Your task to perform on an android device: Go to Wikipedia Image 0: 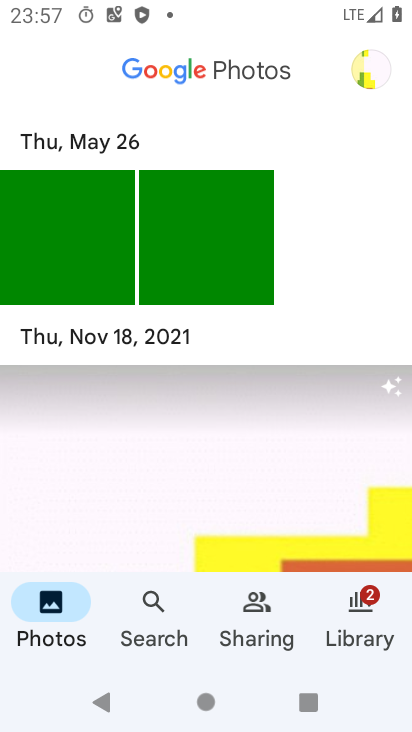
Step 0: drag from (187, 520) to (185, 40)
Your task to perform on an android device: Go to Wikipedia Image 1: 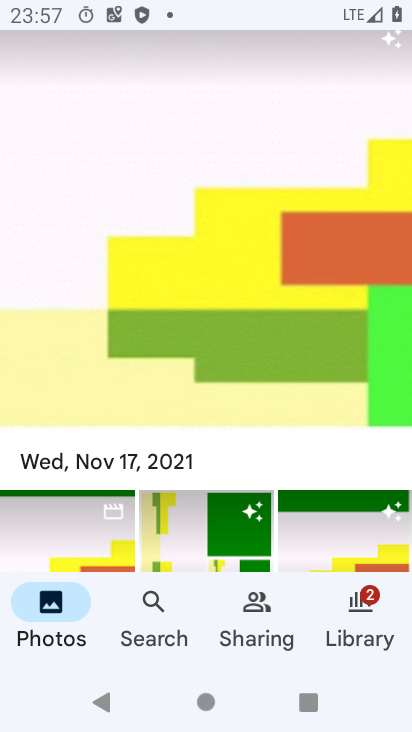
Step 1: drag from (228, 122) to (199, 568)
Your task to perform on an android device: Go to Wikipedia Image 2: 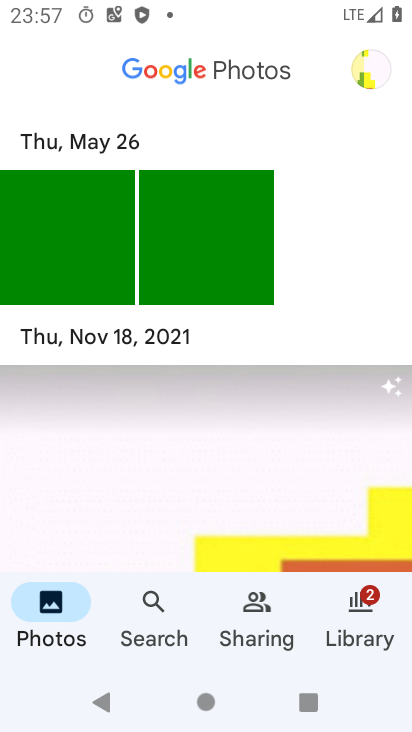
Step 2: drag from (221, 325) to (211, 508)
Your task to perform on an android device: Go to Wikipedia Image 3: 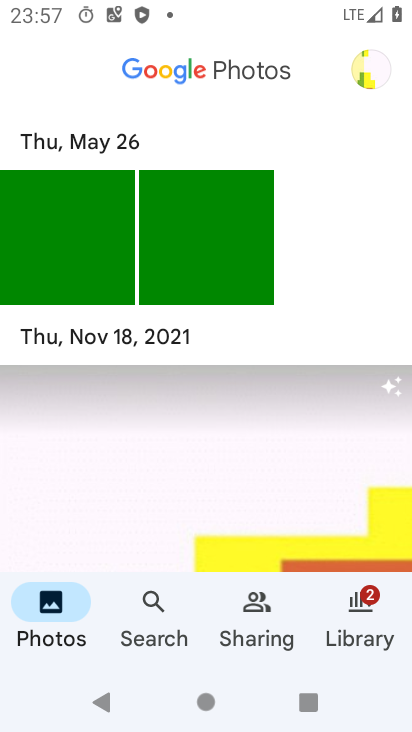
Step 3: drag from (171, 162) to (199, 468)
Your task to perform on an android device: Go to Wikipedia Image 4: 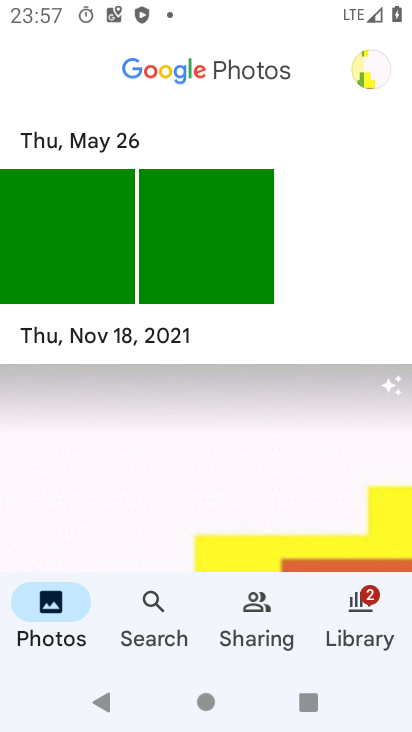
Step 4: drag from (199, 342) to (227, 211)
Your task to perform on an android device: Go to Wikipedia Image 5: 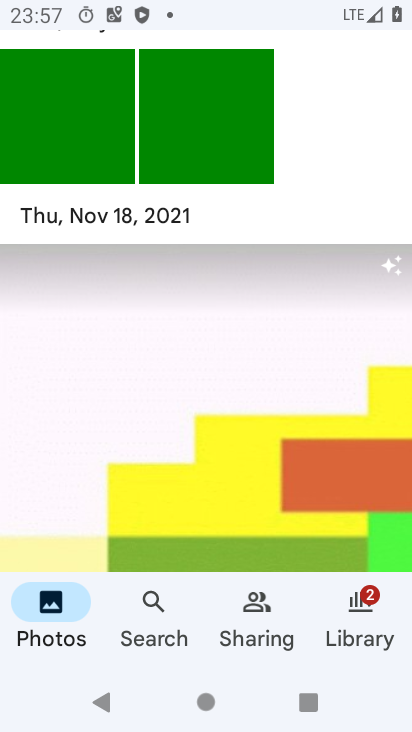
Step 5: drag from (199, 227) to (356, 514)
Your task to perform on an android device: Go to Wikipedia Image 6: 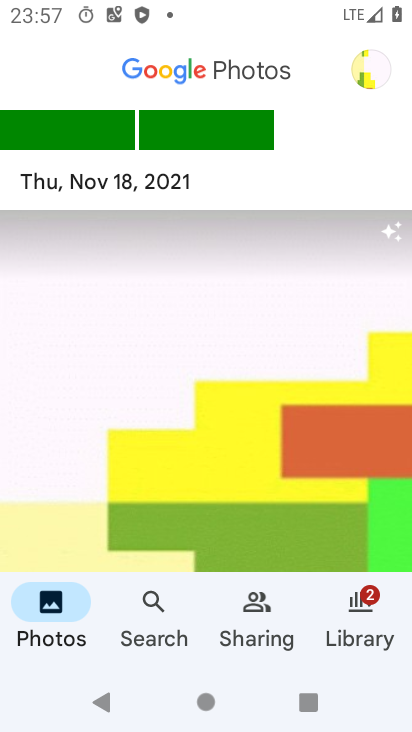
Step 6: drag from (203, 186) to (329, 673)
Your task to perform on an android device: Go to Wikipedia Image 7: 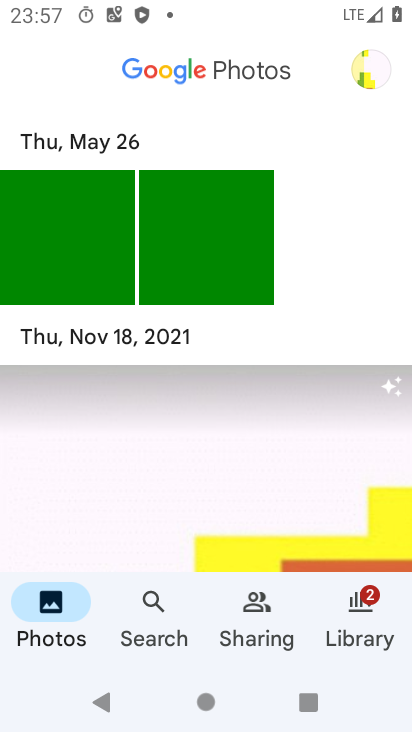
Step 7: press home button
Your task to perform on an android device: Go to Wikipedia Image 8: 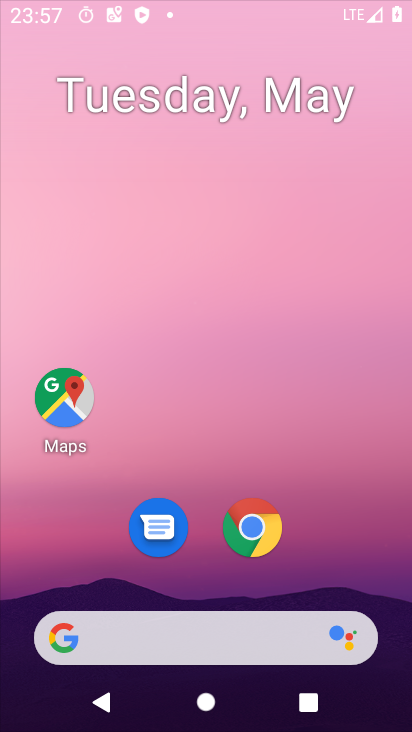
Step 8: drag from (198, 536) to (238, 151)
Your task to perform on an android device: Go to Wikipedia Image 9: 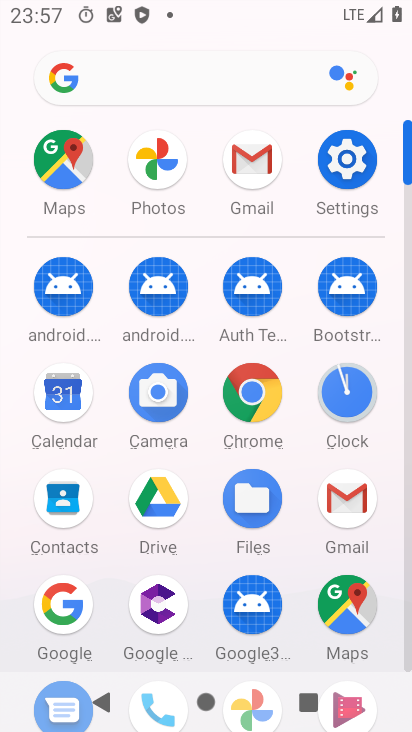
Step 9: drag from (216, 541) to (201, 254)
Your task to perform on an android device: Go to Wikipedia Image 10: 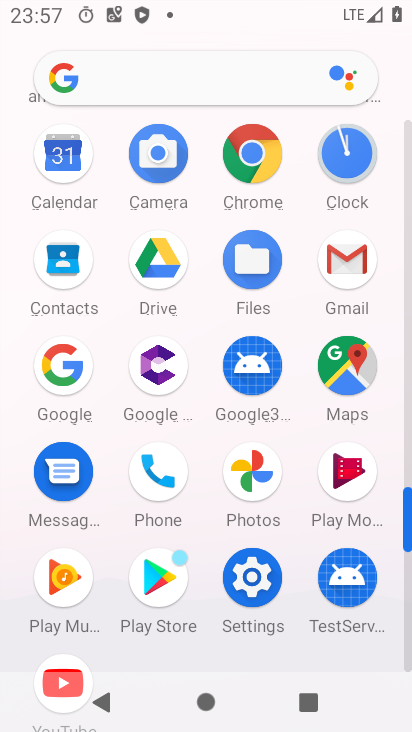
Step 10: drag from (211, 414) to (230, 174)
Your task to perform on an android device: Go to Wikipedia Image 11: 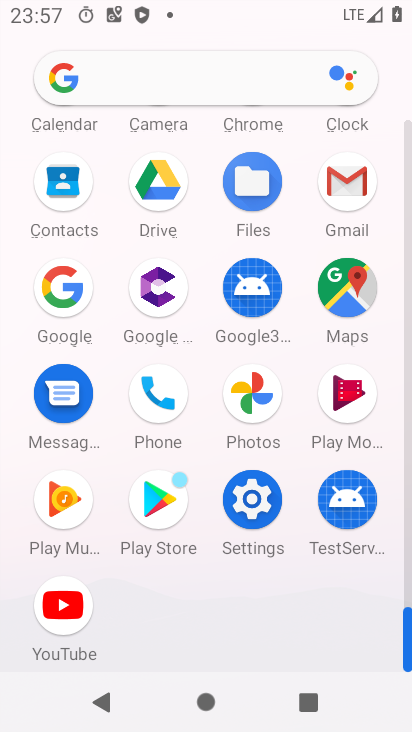
Step 11: drag from (199, 156) to (259, 592)
Your task to perform on an android device: Go to Wikipedia Image 12: 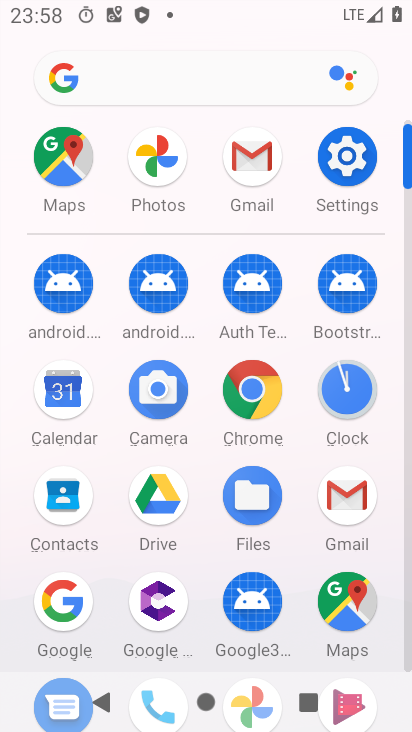
Step 12: type "Wikipedia"
Your task to perform on an android device: Go to Wikipedia Image 13: 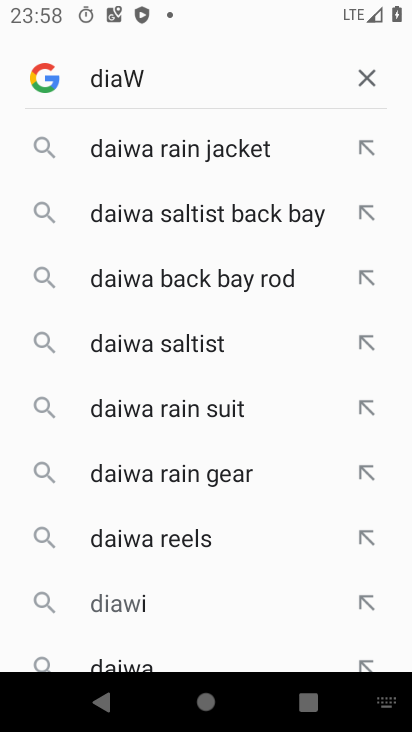
Step 13: click (369, 73)
Your task to perform on an android device: Go to Wikipedia Image 14: 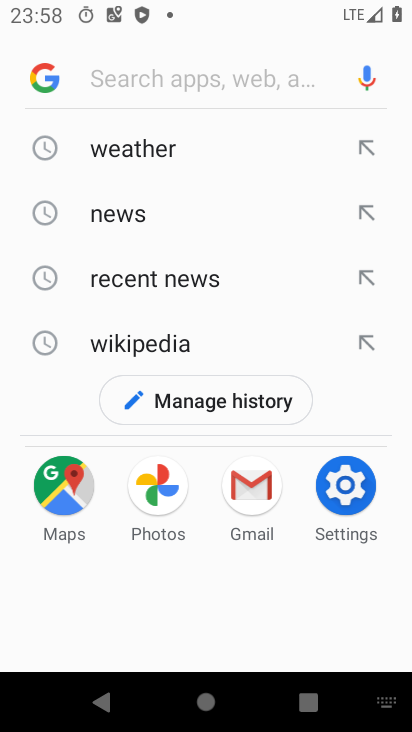
Step 14: click (126, 348)
Your task to perform on an android device: Go to Wikipedia Image 15: 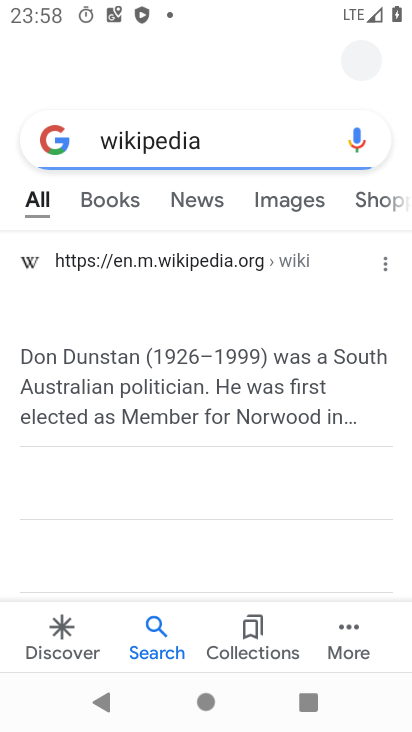
Step 15: drag from (175, 523) to (230, 148)
Your task to perform on an android device: Go to Wikipedia Image 16: 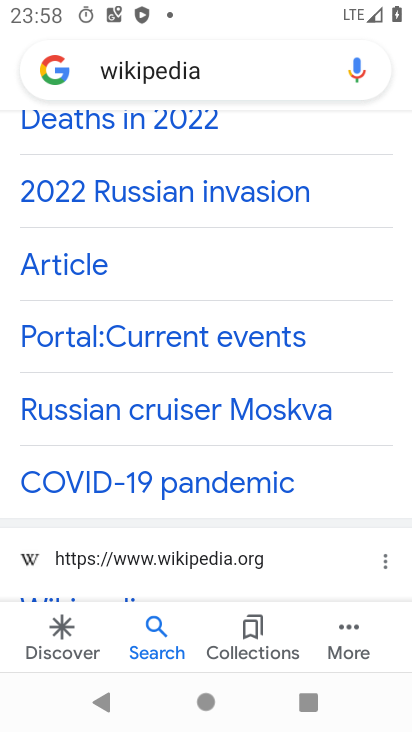
Step 16: drag from (178, 171) to (386, 728)
Your task to perform on an android device: Go to Wikipedia Image 17: 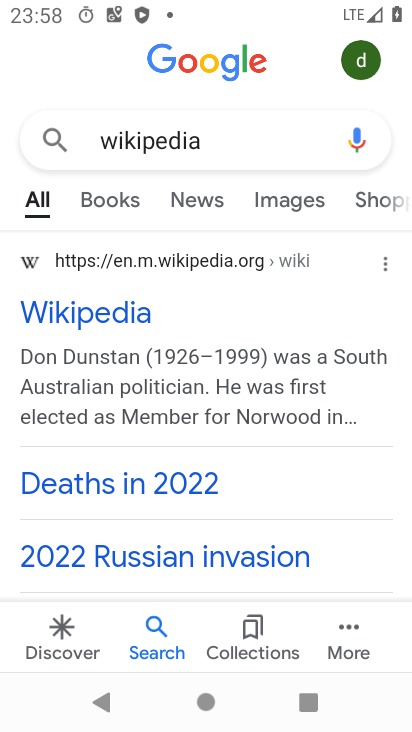
Step 17: click (72, 322)
Your task to perform on an android device: Go to Wikipedia Image 18: 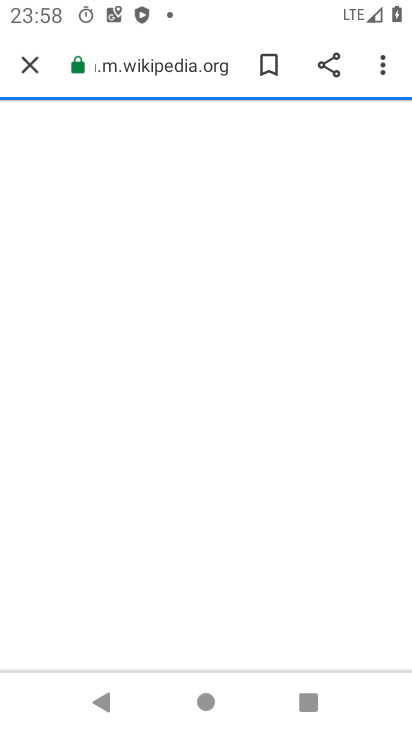
Step 18: task complete